Your task to perform on an android device: turn notification dots off Image 0: 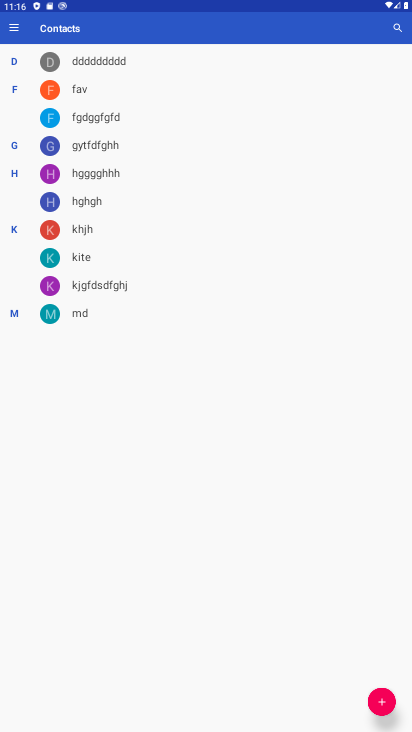
Step 0: press home button
Your task to perform on an android device: turn notification dots off Image 1: 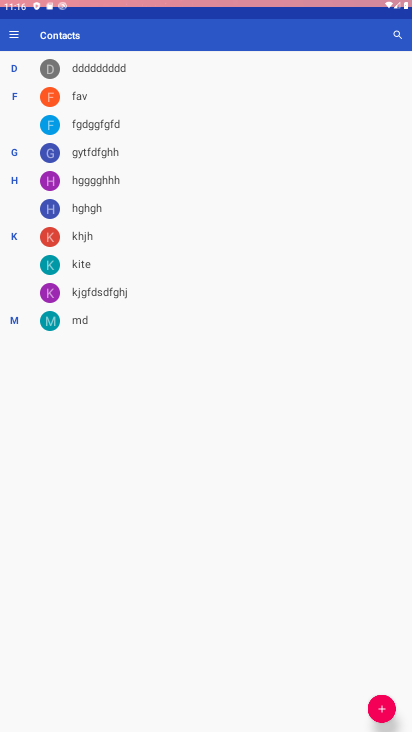
Step 1: drag from (224, 663) to (207, 131)
Your task to perform on an android device: turn notification dots off Image 2: 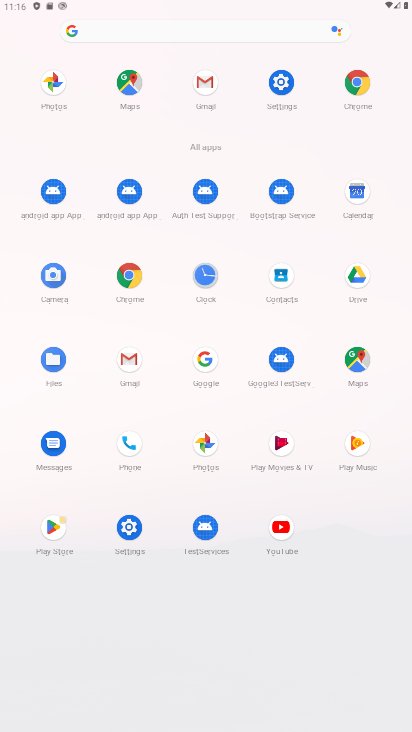
Step 2: click (266, 92)
Your task to perform on an android device: turn notification dots off Image 3: 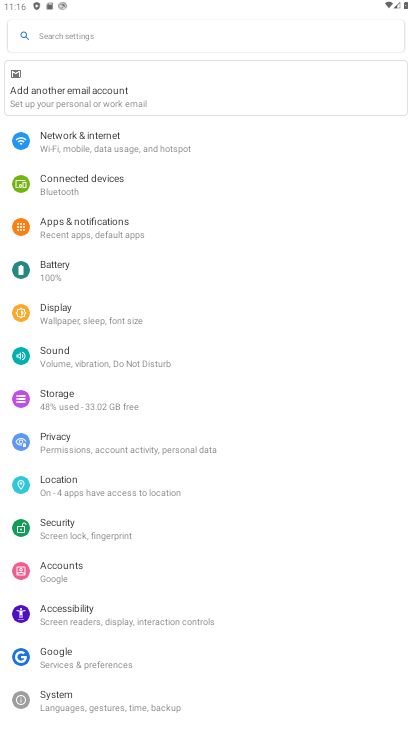
Step 3: click (89, 226)
Your task to perform on an android device: turn notification dots off Image 4: 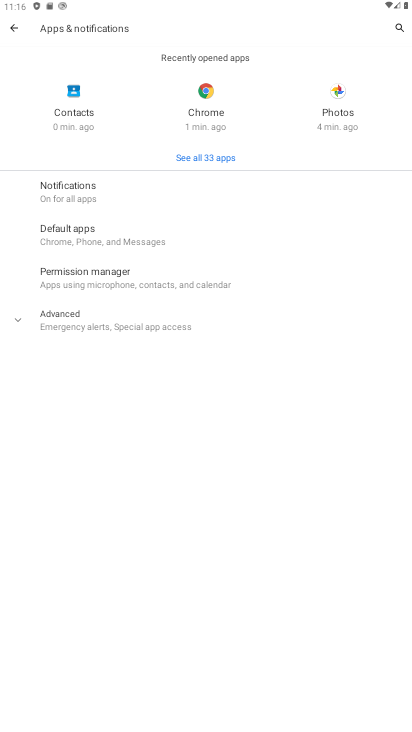
Step 4: click (90, 182)
Your task to perform on an android device: turn notification dots off Image 5: 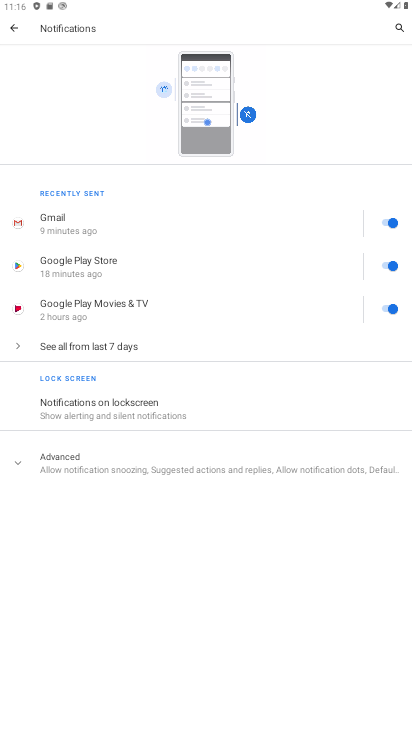
Step 5: click (75, 466)
Your task to perform on an android device: turn notification dots off Image 6: 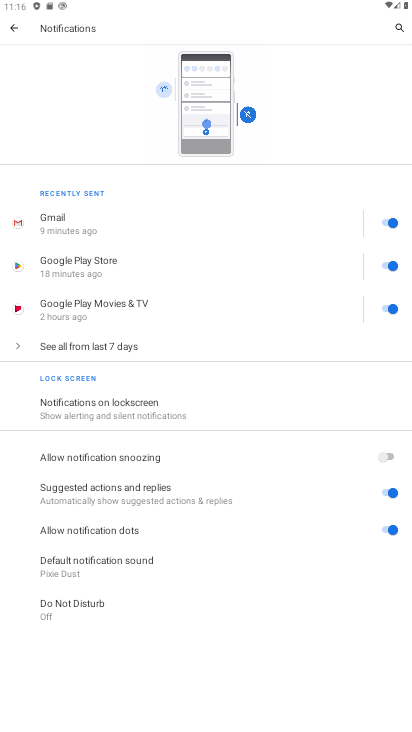
Step 6: drag from (86, 653) to (132, 529)
Your task to perform on an android device: turn notification dots off Image 7: 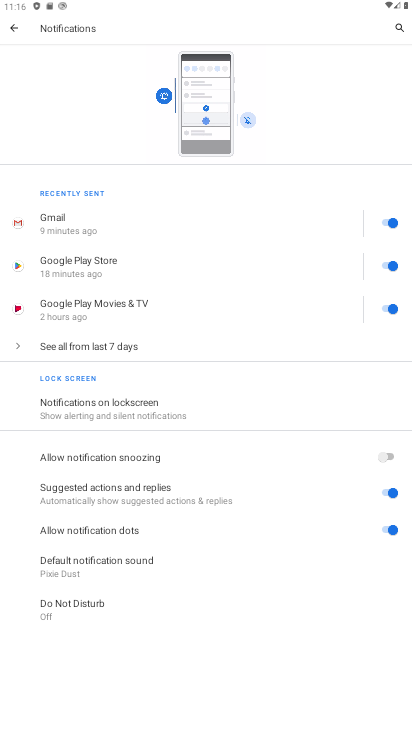
Step 7: click (127, 528)
Your task to perform on an android device: turn notification dots off Image 8: 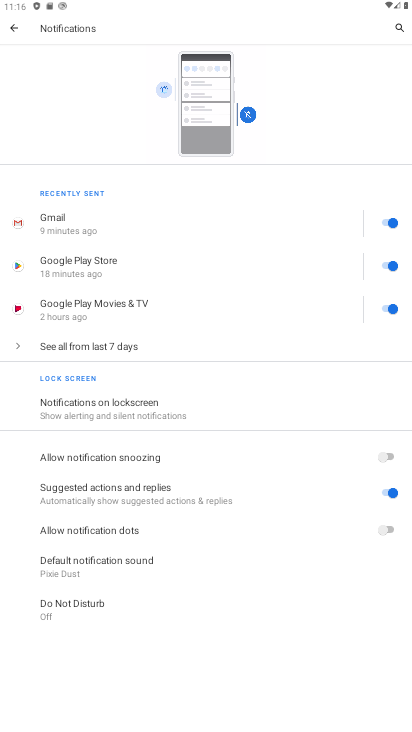
Step 8: task complete